Your task to perform on an android device: What's the weather today? Image 0: 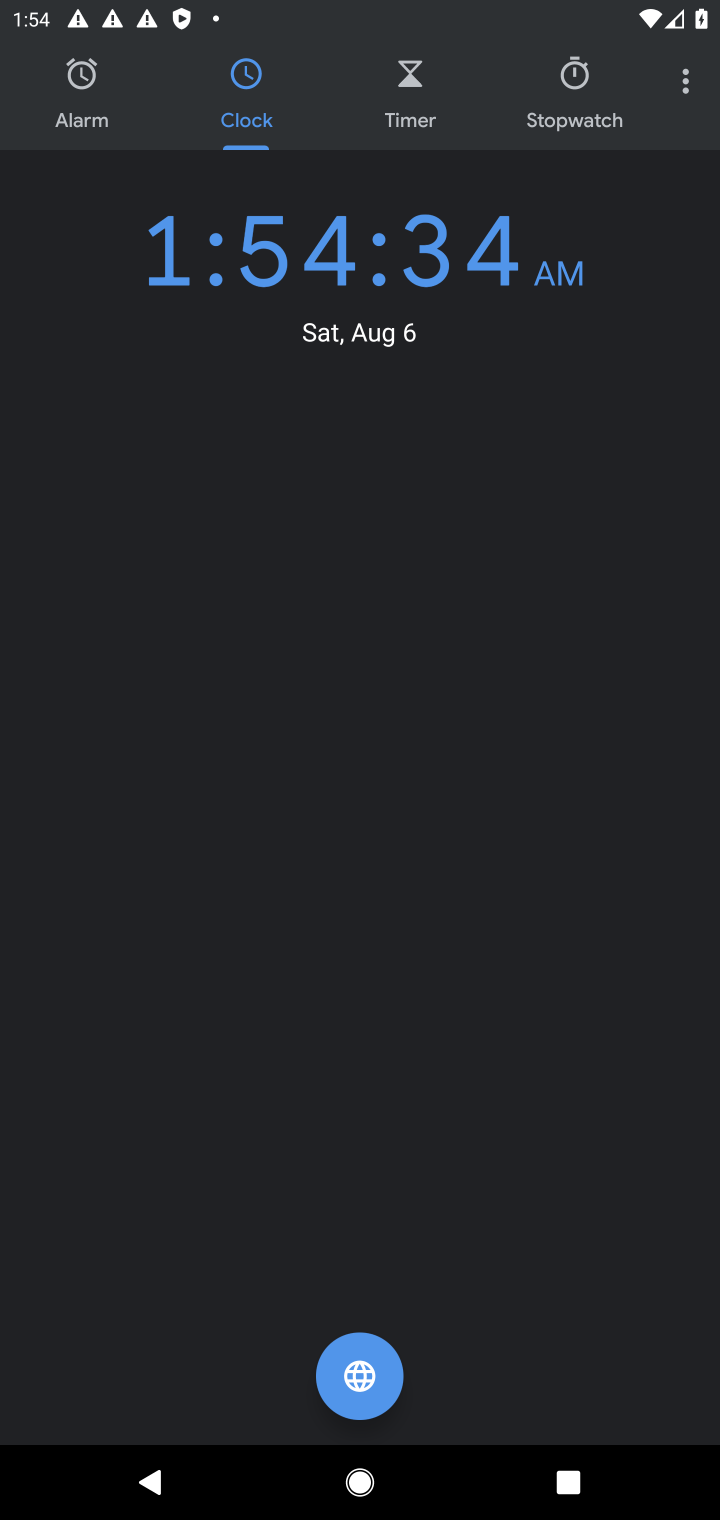
Step 0: press home button
Your task to perform on an android device: What's the weather today? Image 1: 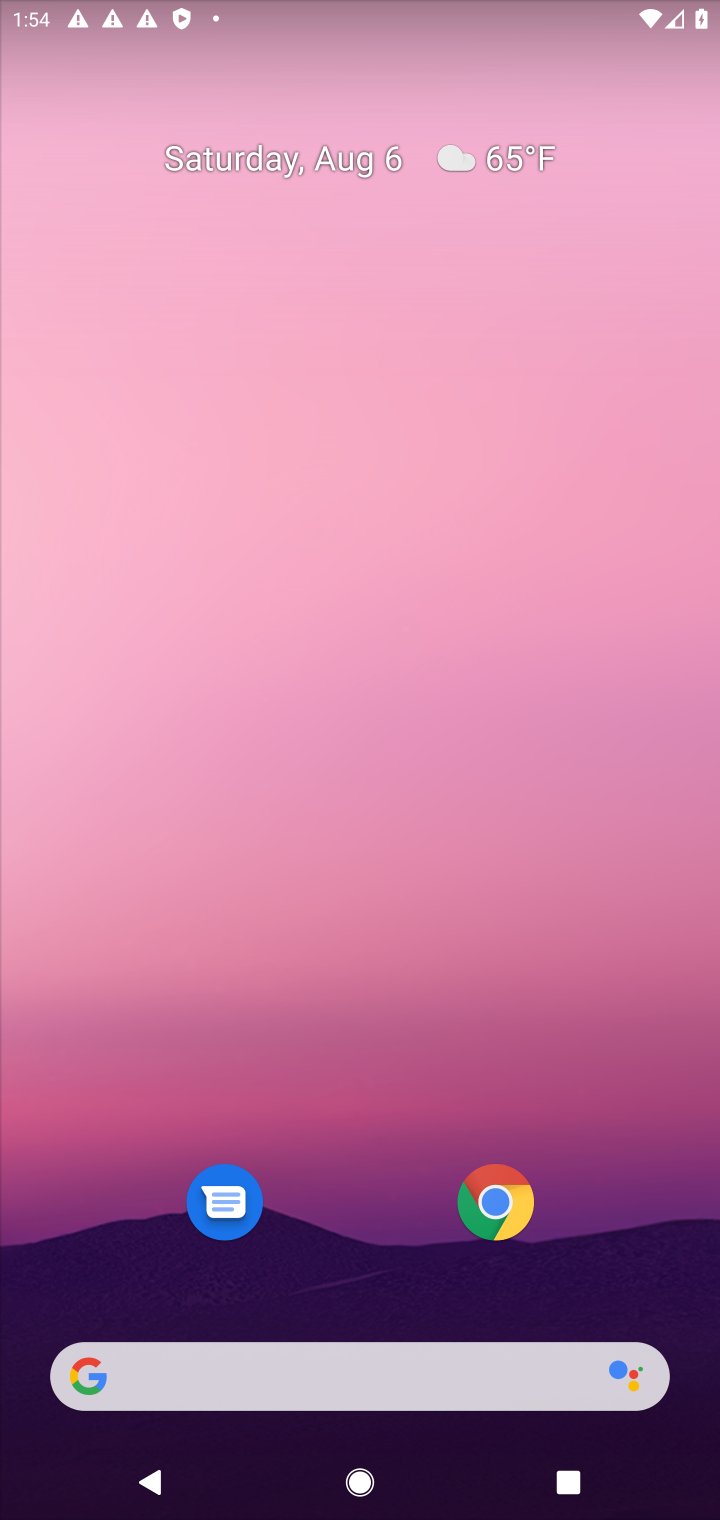
Step 1: drag from (298, 965) to (298, 513)
Your task to perform on an android device: What's the weather today? Image 2: 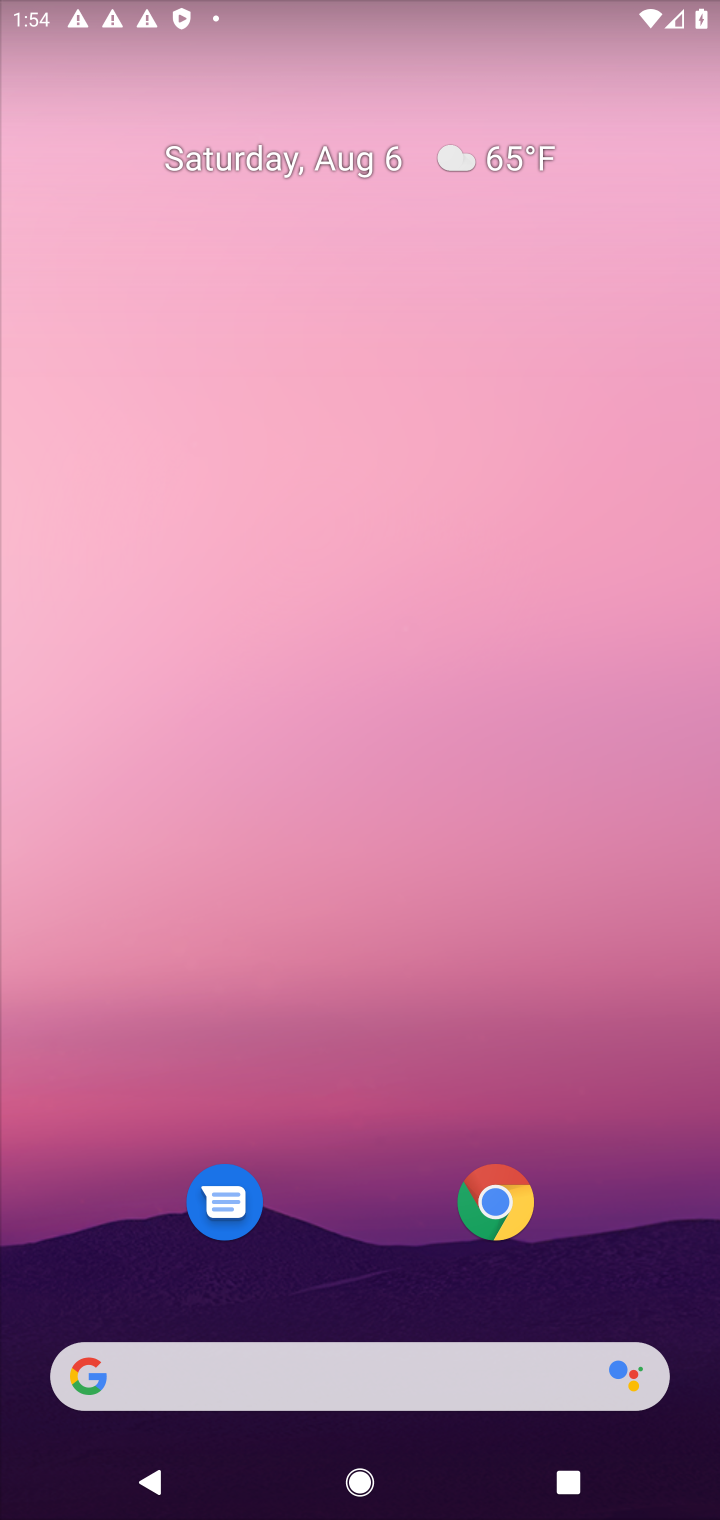
Step 2: click (593, 173)
Your task to perform on an android device: What's the weather today? Image 3: 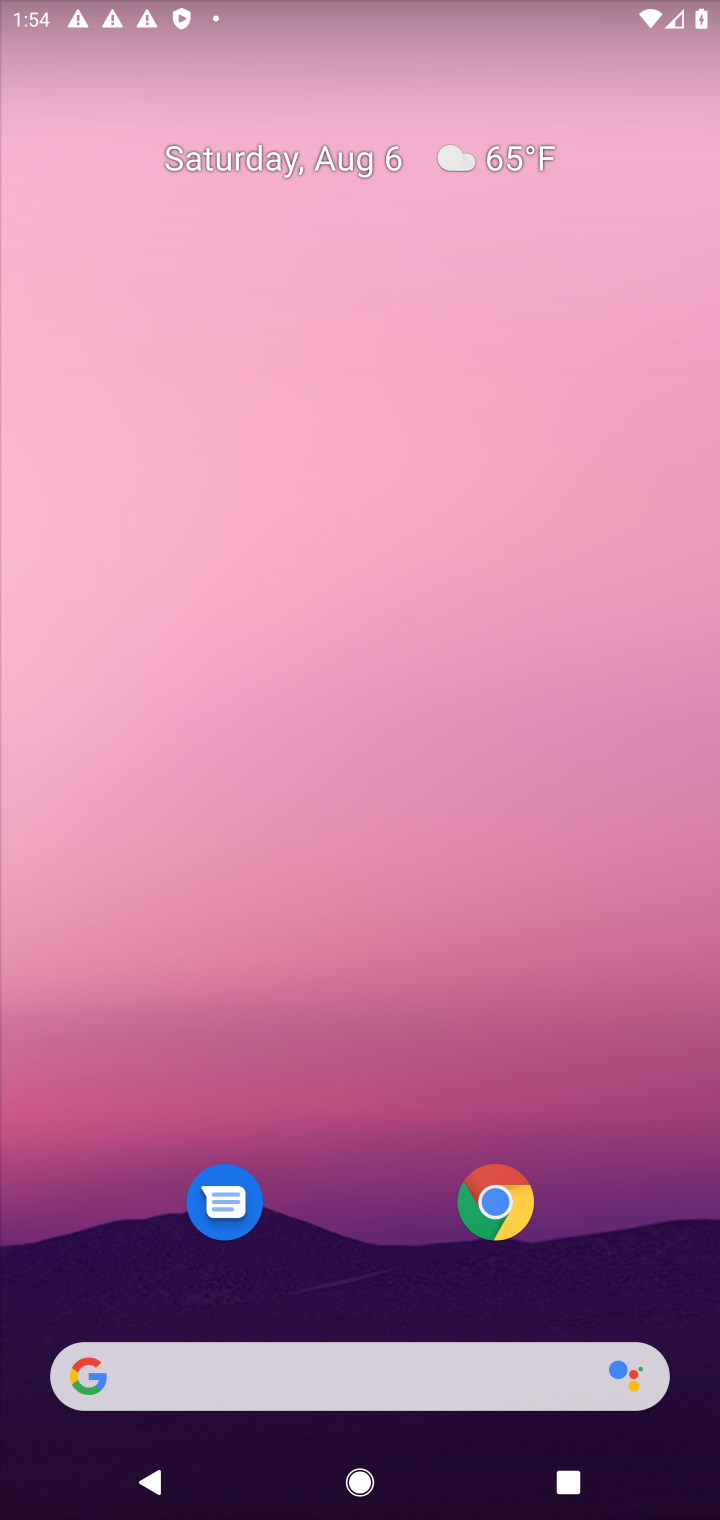
Step 3: click (473, 300)
Your task to perform on an android device: What's the weather today? Image 4: 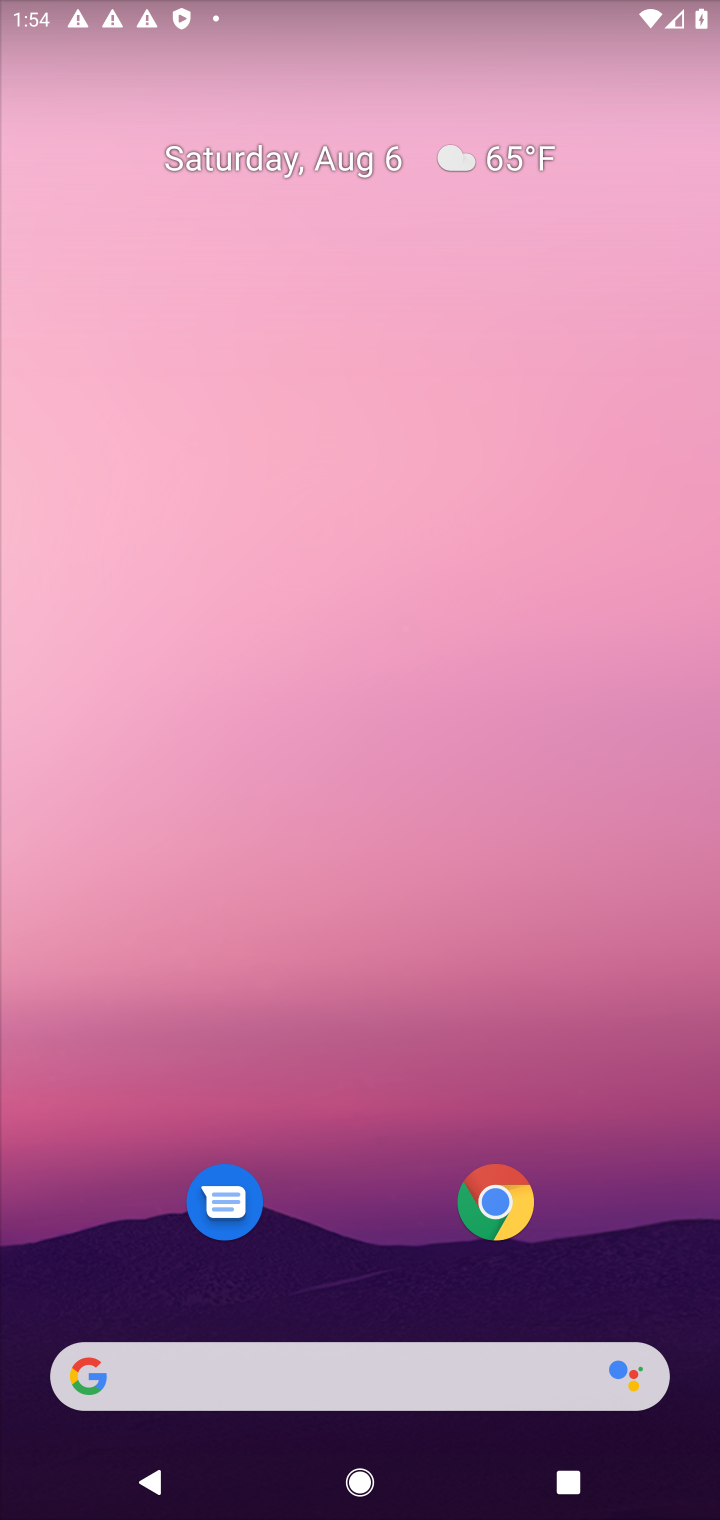
Step 4: drag from (352, 797) to (352, 301)
Your task to perform on an android device: What's the weather today? Image 5: 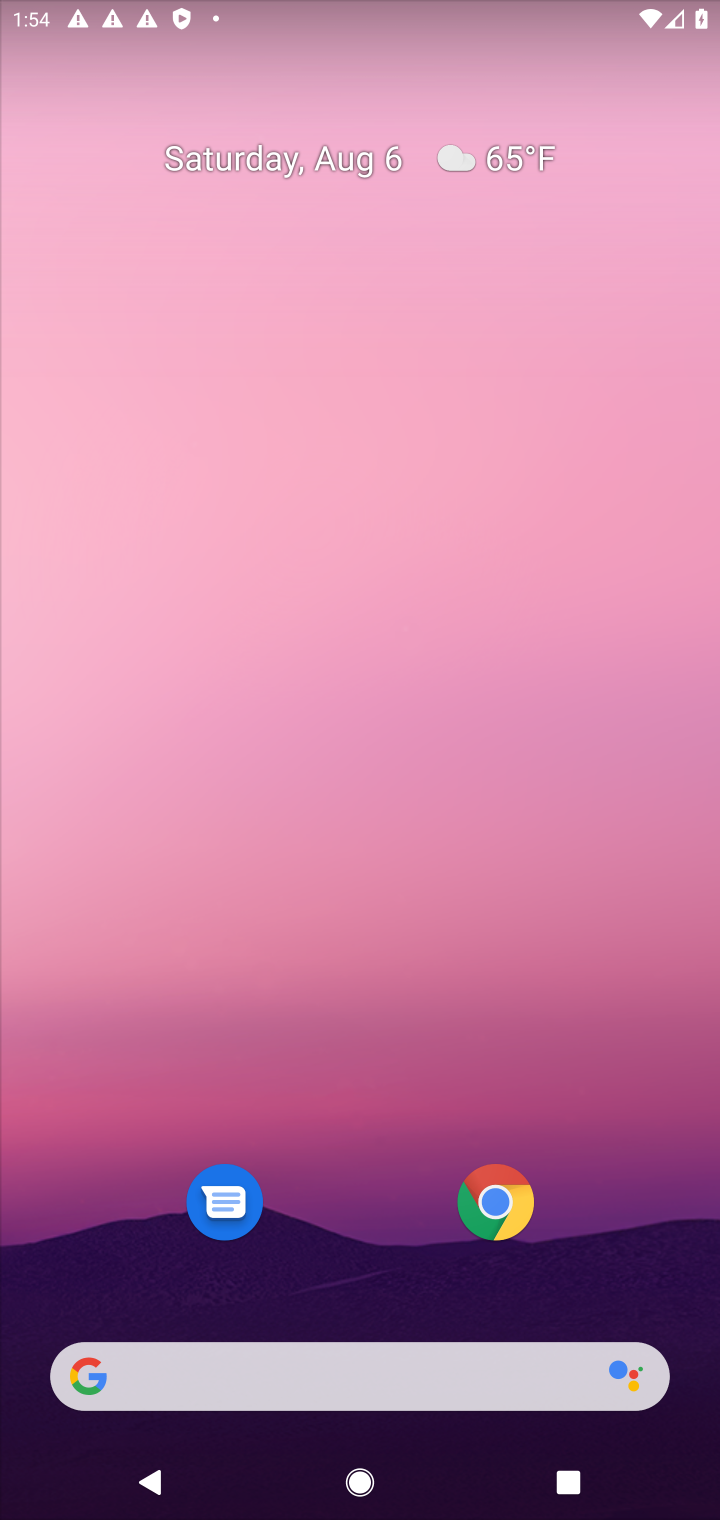
Step 5: drag from (300, 875) to (293, 466)
Your task to perform on an android device: What's the weather today? Image 6: 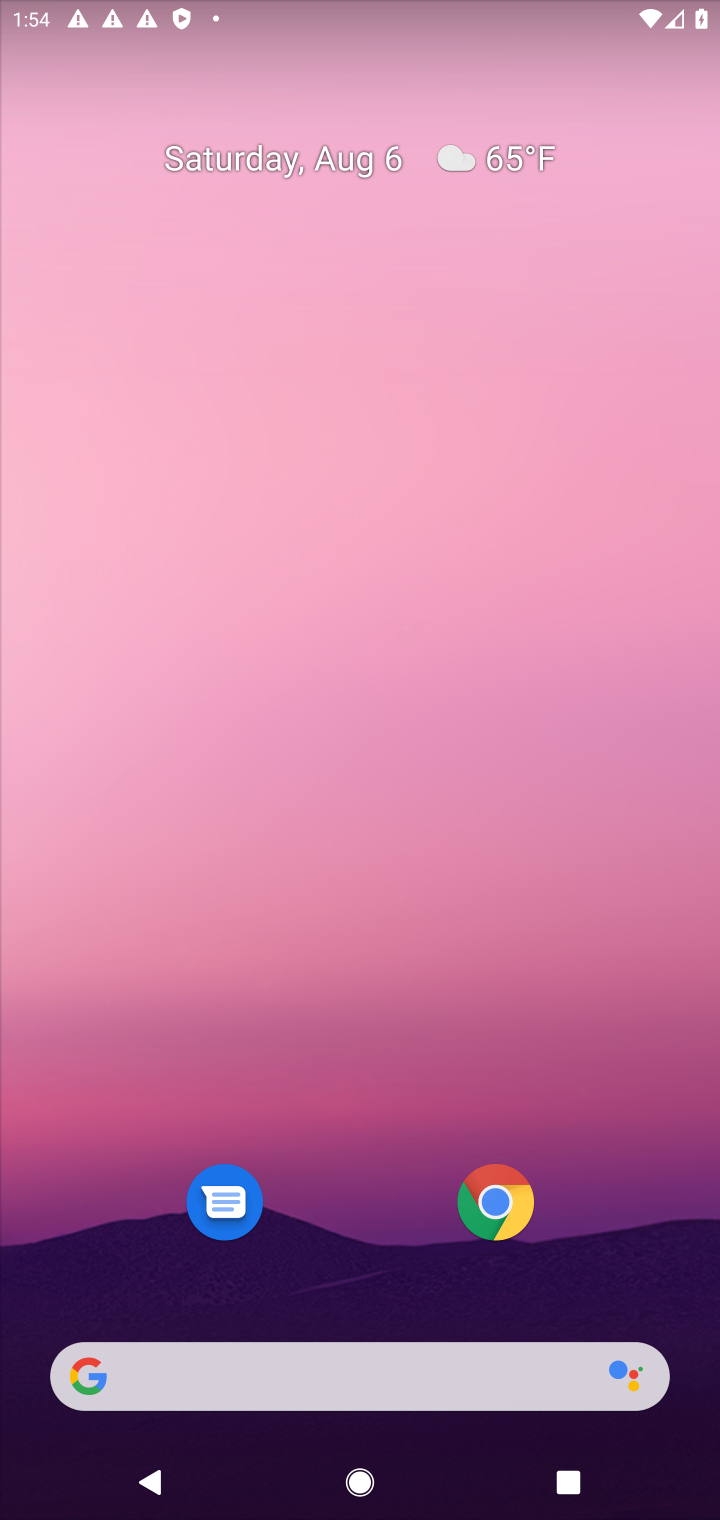
Step 6: drag from (349, 709) to (349, 327)
Your task to perform on an android device: What's the weather today? Image 7: 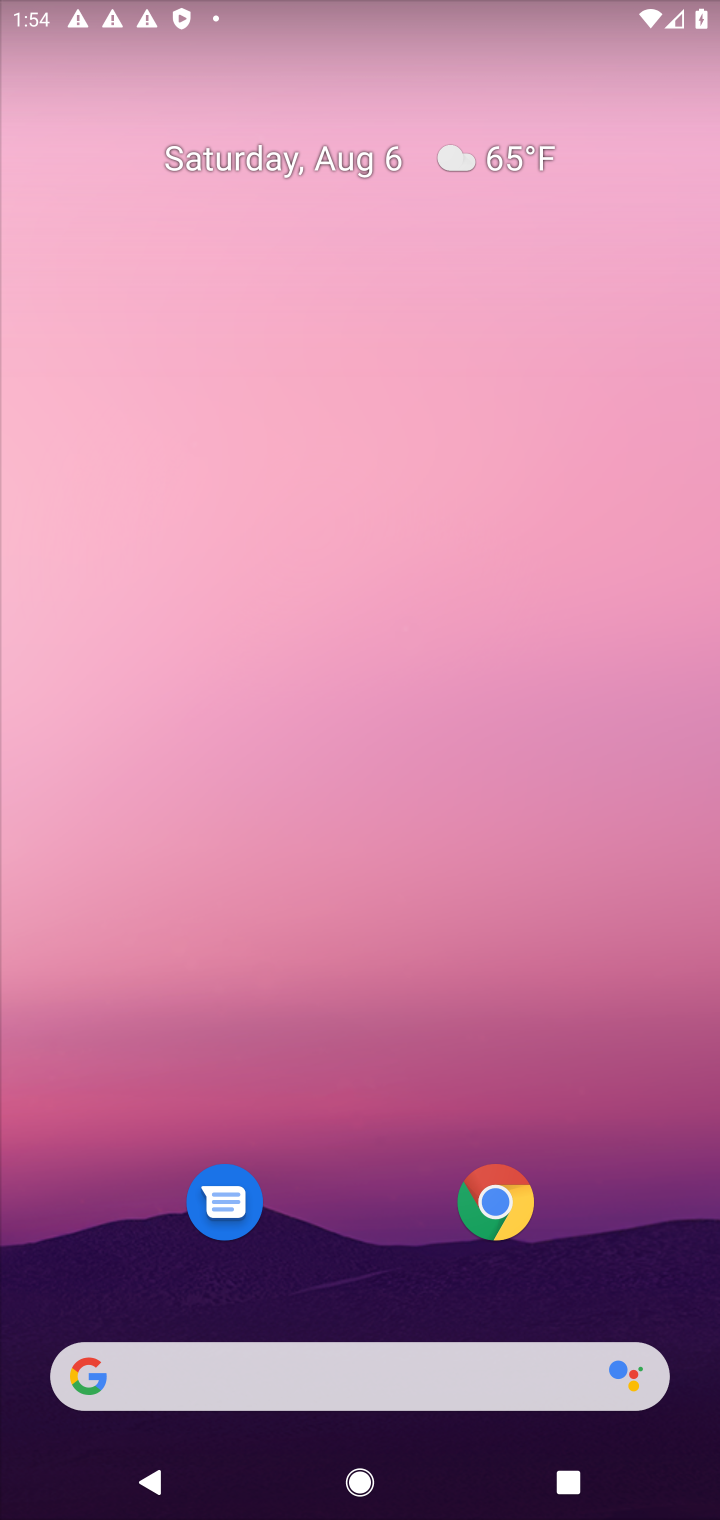
Step 7: drag from (328, 1279) to (334, 32)
Your task to perform on an android device: What's the weather today? Image 8: 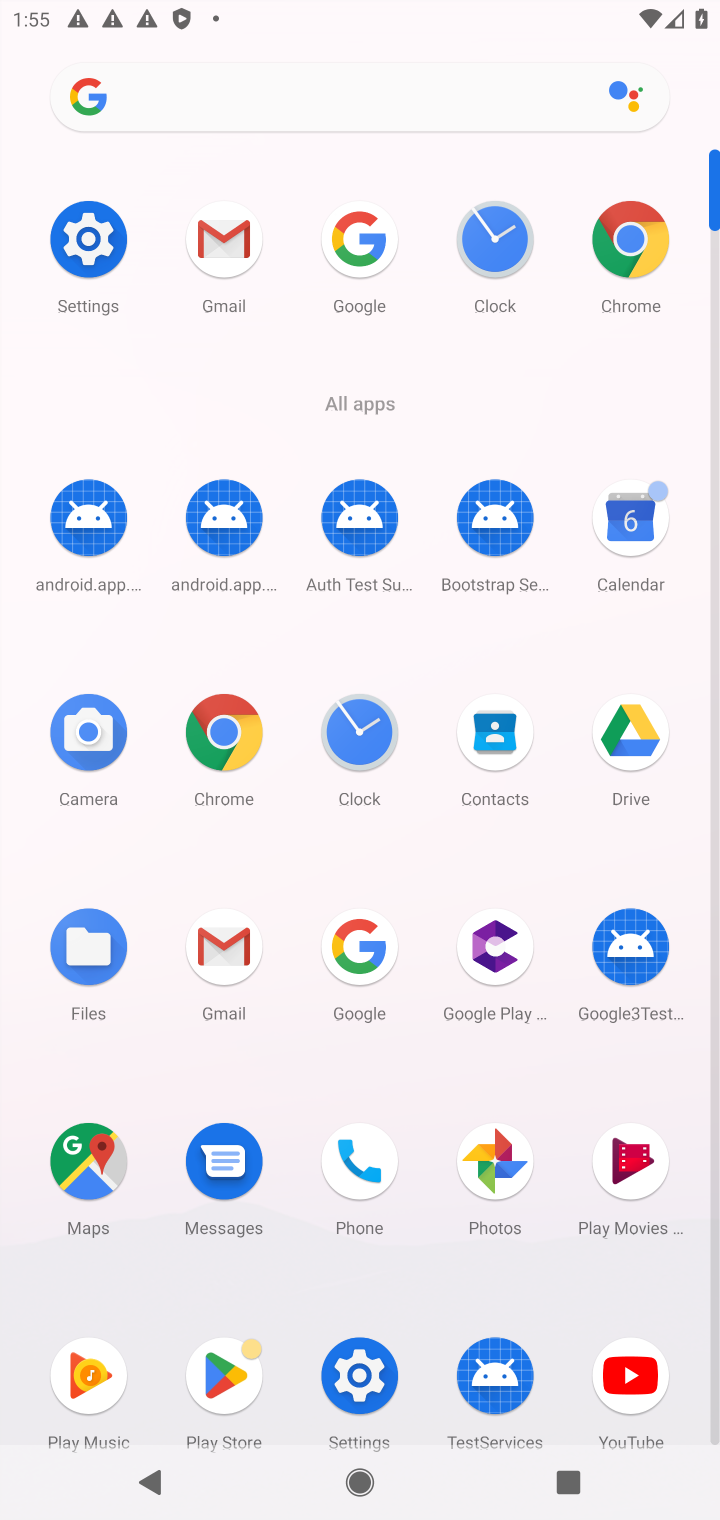
Step 8: click (346, 255)
Your task to perform on an android device: What's the weather today? Image 9: 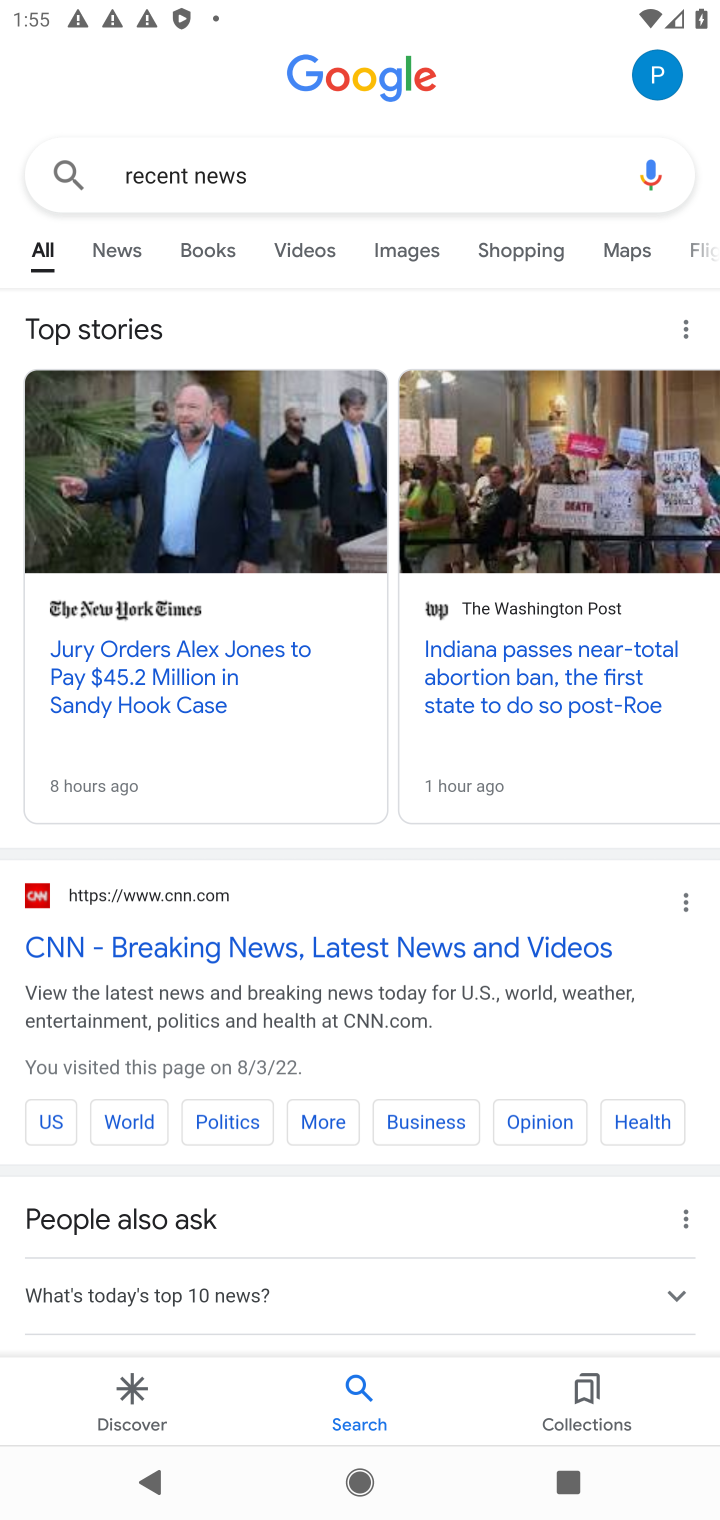
Step 9: click (268, 177)
Your task to perform on an android device: What's the weather today? Image 10: 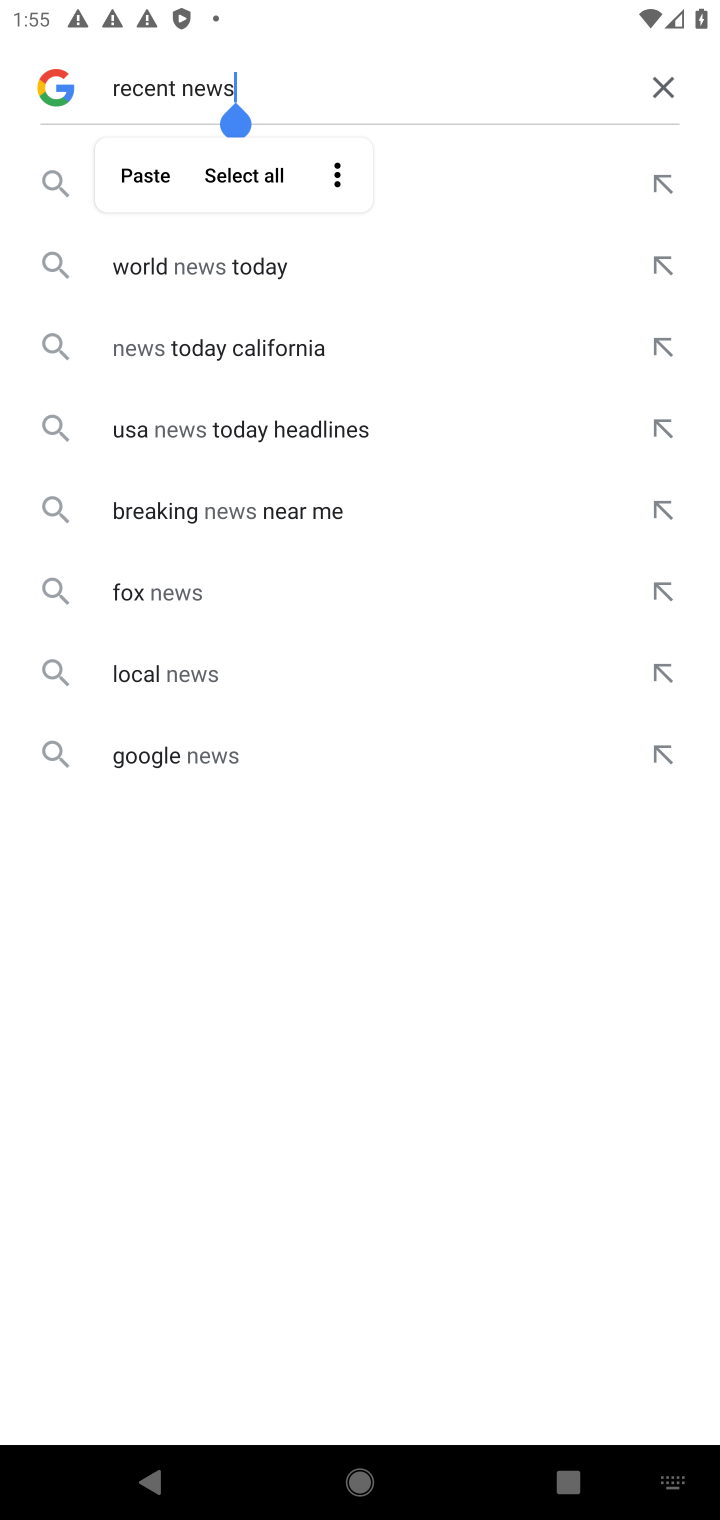
Step 10: click (657, 95)
Your task to perform on an android device: What's the weather today? Image 11: 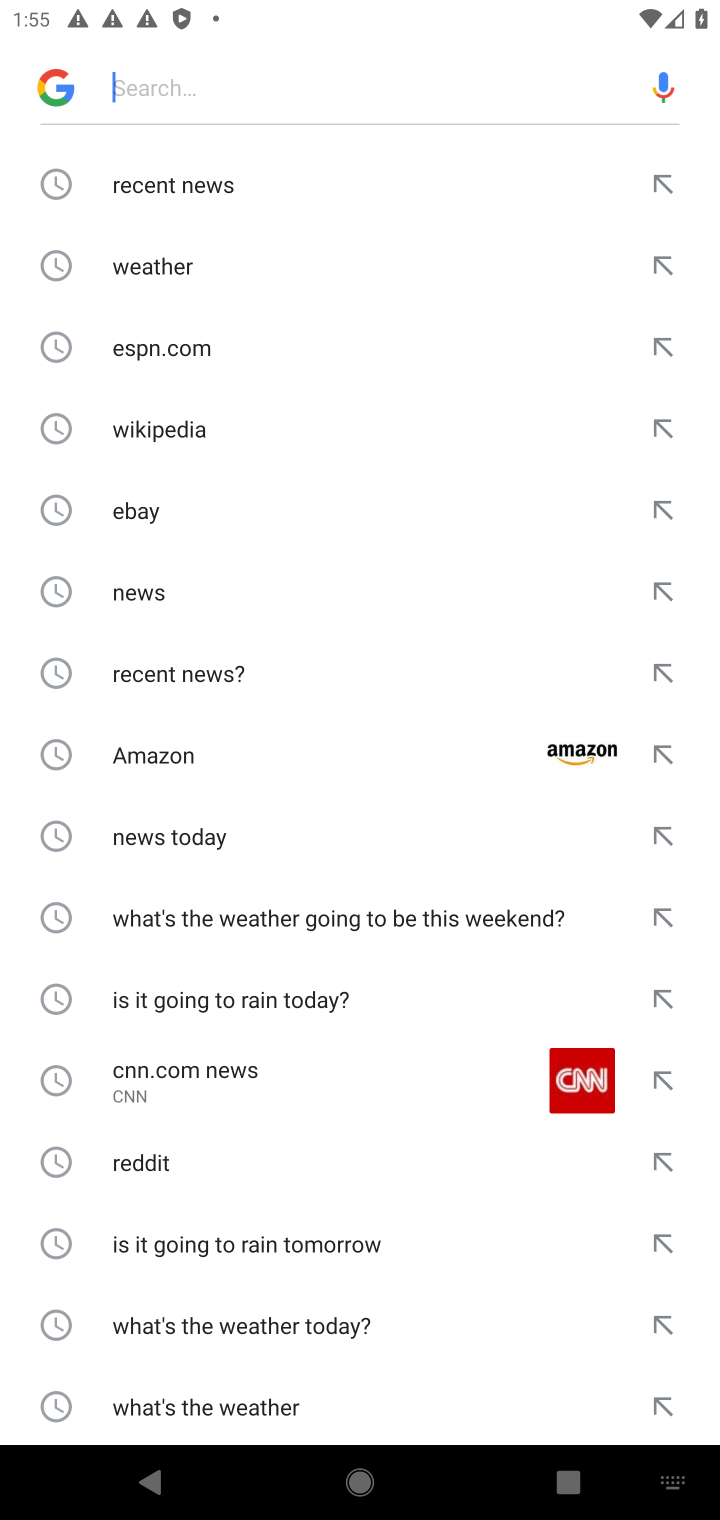
Step 11: click (113, 271)
Your task to perform on an android device: What's the weather today? Image 12: 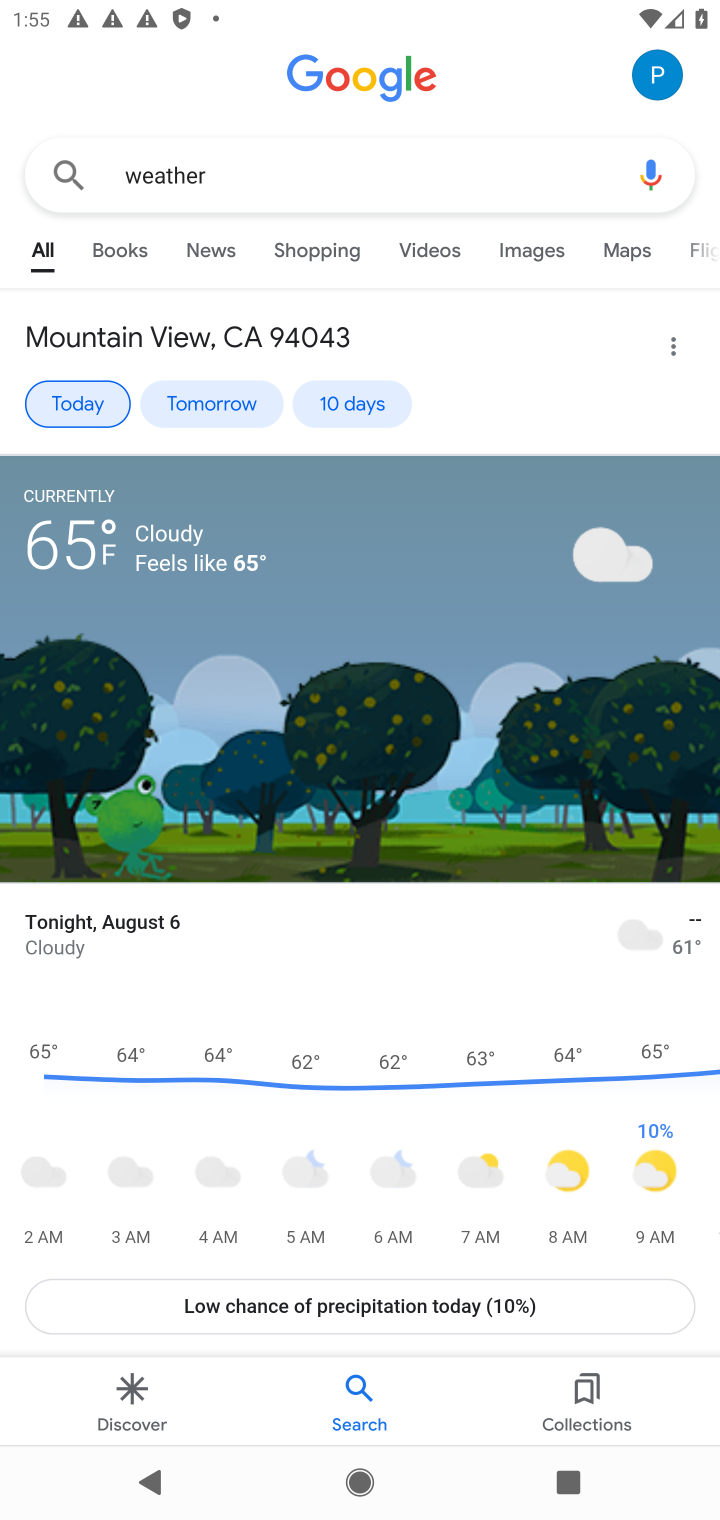
Step 12: task complete